Your task to perform on an android device: Go to Maps Image 0: 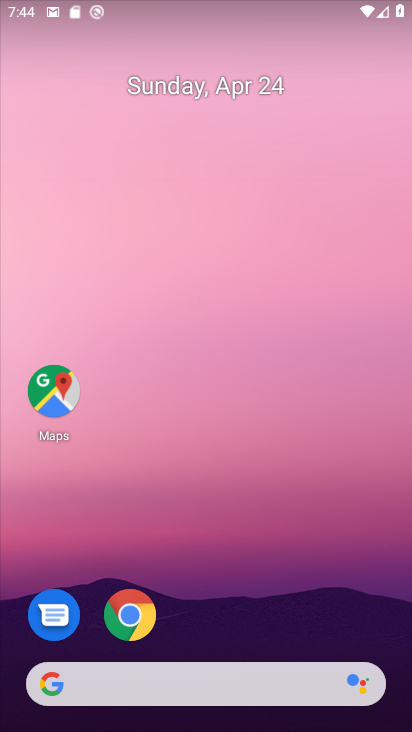
Step 0: click (51, 382)
Your task to perform on an android device: Go to Maps Image 1: 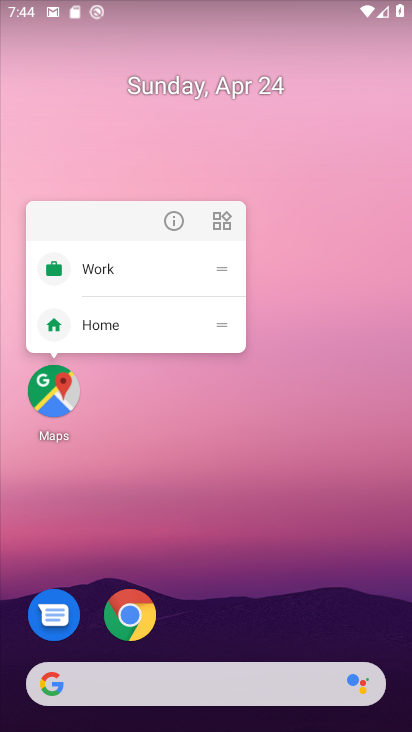
Step 1: click (42, 406)
Your task to perform on an android device: Go to Maps Image 2: 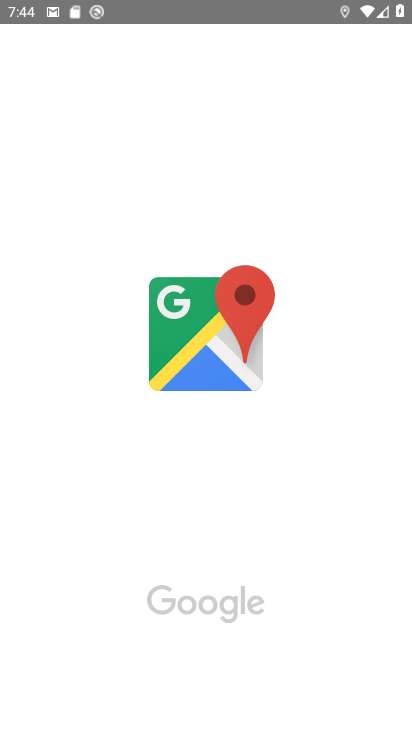
Step 2: task complete